Your task to perform on an android device: find snoozed emails in the gmail app Image 0: 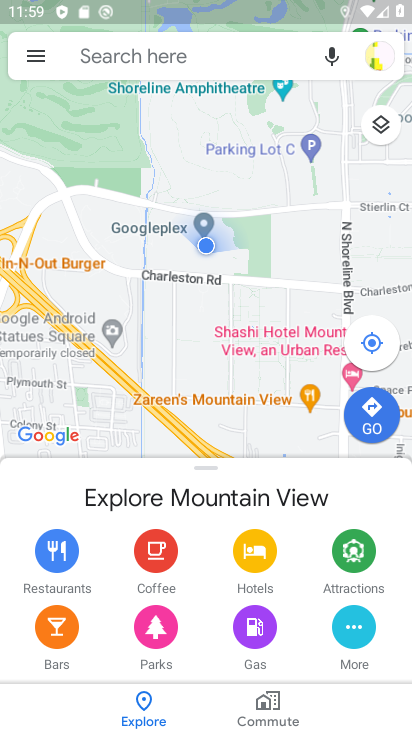
Step 0: press home button
Your task to perform on an android device: find snoozed emails in the gmail app Image 1: 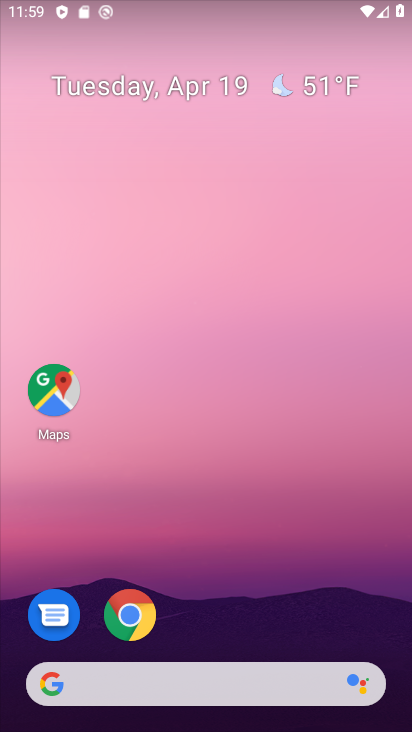
Step 1: drag from (329, 581) to (406, 340)
Your task to perform on an android device: find snoozed emails in the gmail app Image 2: 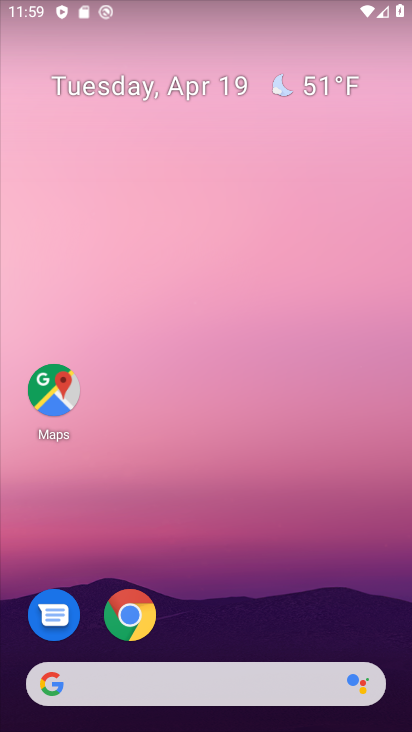
Step 2: drag from (294, 613) to (249, 5)
Your task to perform on an android device: find snoozed emails in the gmail app Image 3: 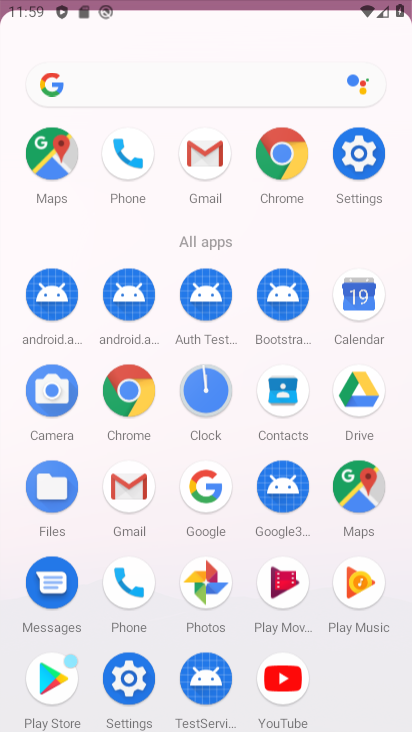
Step 3: click (199, 176)
Your task to perform on an android device: find snoozed emails in the gmail app Image 4: 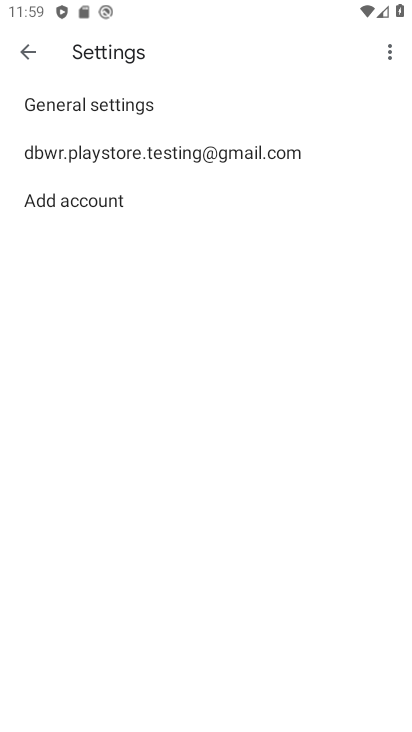
Step 4: click (29, 45)
Your task to perform on an android device: find snoozed emails in the gmail app Image 5: 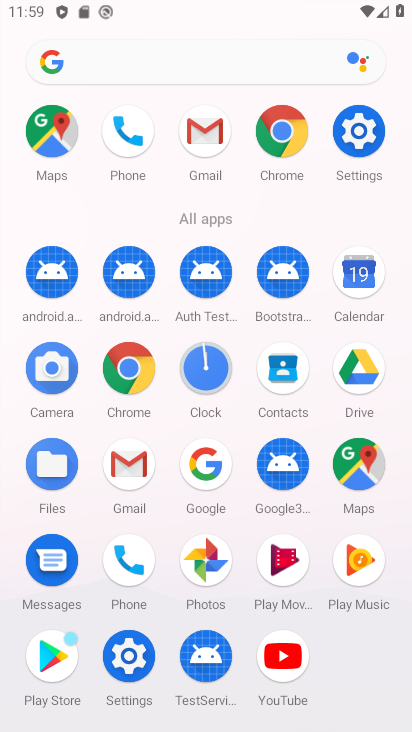
Step 5: click (207, 134)
Your task to perform on an android device: find snoozed emails in the gmail app Image 6: 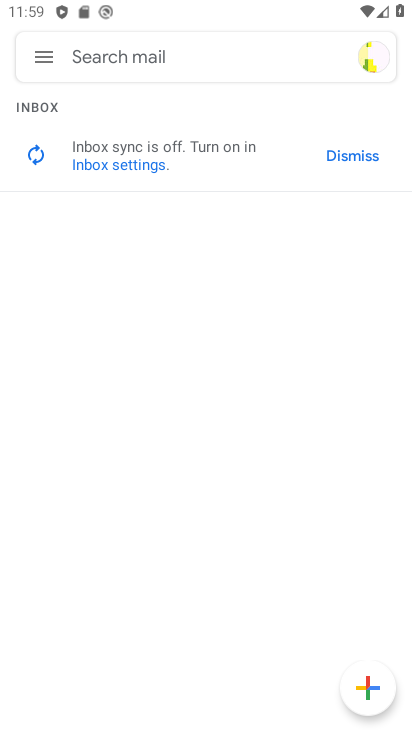
Step 6: click (35, 61)
Your task to perform on an android device: find snoozed emails in the gmail app Image 7: 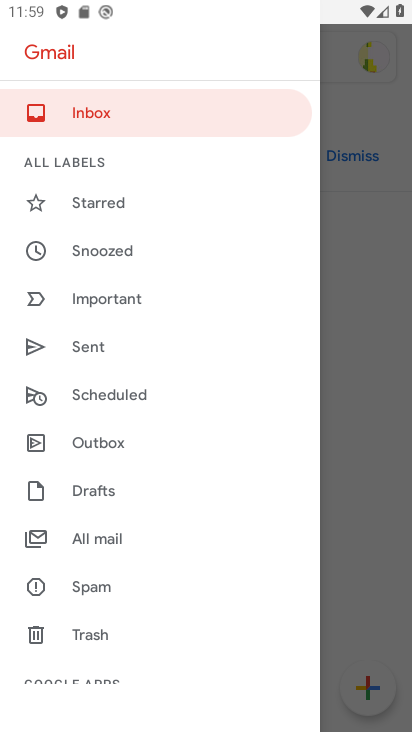
Step 7: click (94, 251)
Your task to perform on an android device: find snoozed emails in the gmail app Image 8: 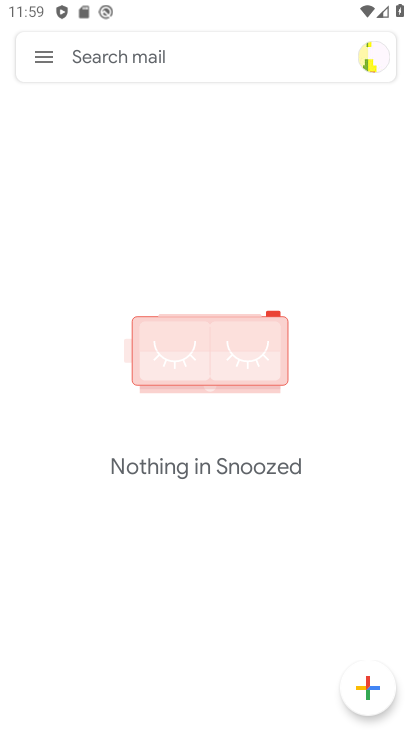
Step 8: task complete